Your task to perform on an android device: Show me popular games on the Play Store Image 0: 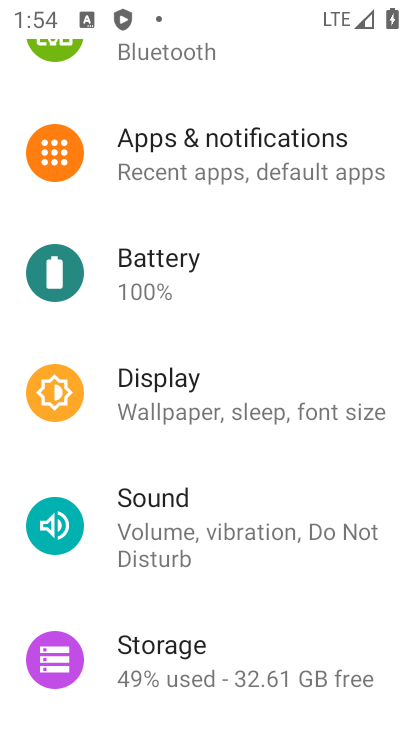
Step 0: press home button
Your task to perform on an android device: Show me popular games on the Play Store Image 1: 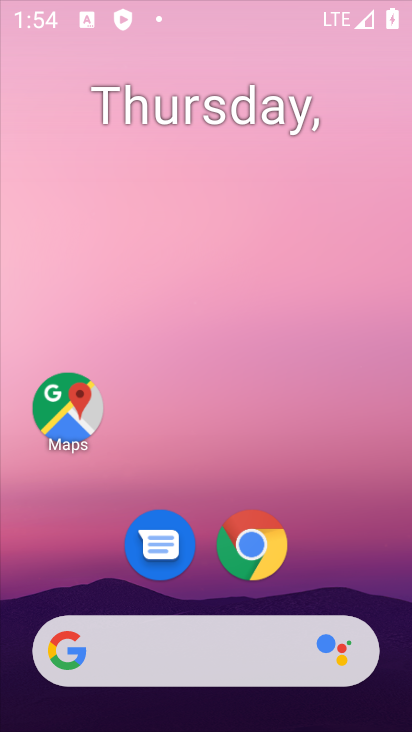
Step 1: drag from (298, 613) to (298, 13)
Your task to perform on an android device: Show me popular games on the Play Store Image 2: 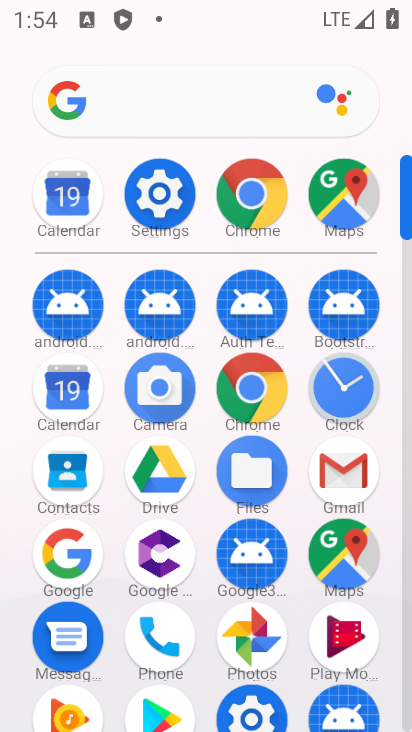
Step 2: drag from (296, 643) to (301, 128)
Your task to perform on an android device: Show me popular games on the Play Store Image 3: 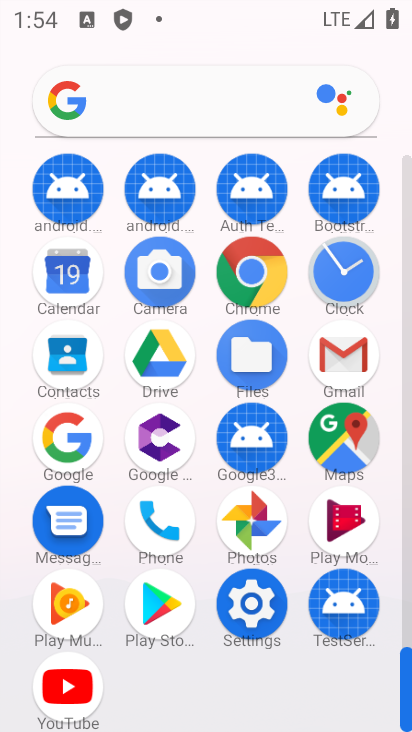
Step 3: click (164, 618)
Your task to perform on an android device: Show me popular games on the Play Store Image 4: 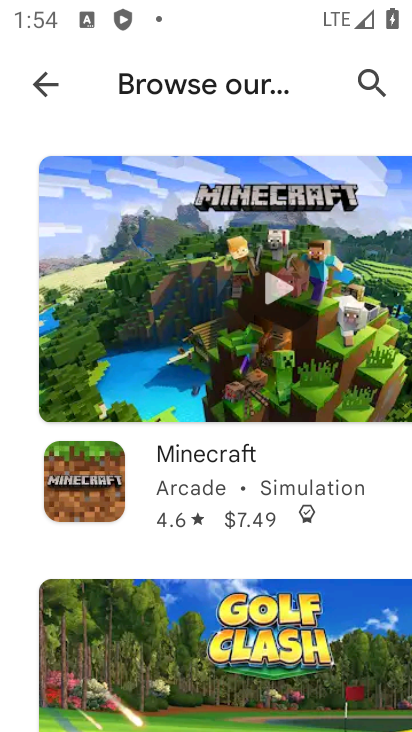
Step 4: task complete